Your task to perform on an android device: turn off notifications settings in the gmail app Image 0: 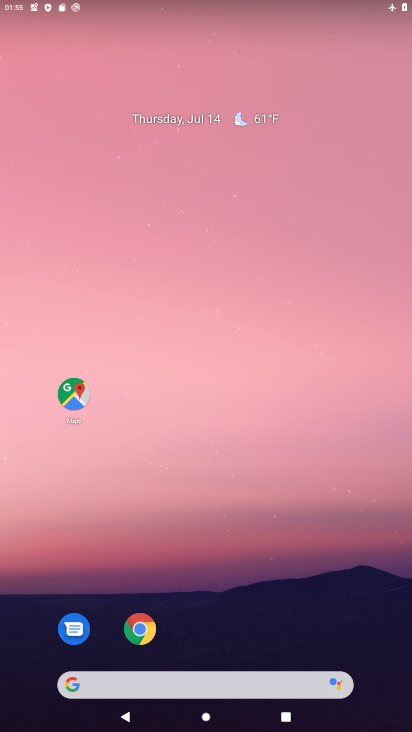
Step 0: drag from (319, 629) to (260, 112)
Your task to perform on an android device: turn off notifications settings in the gmail app Image 1: 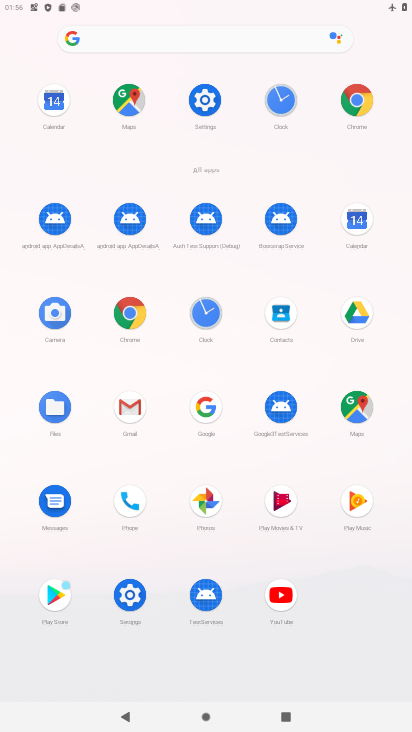
Step 1: click (133, 411)
Your task to perform on an android device: turn off notifications settings in the gmail app Image 2: 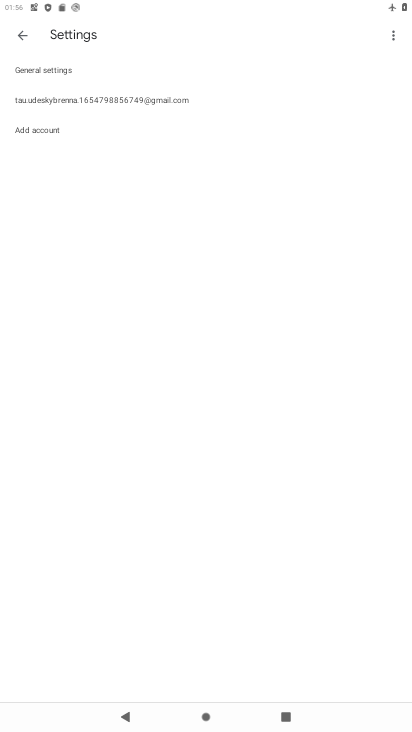
Step 2: click (121, 99)
Your task to perform on an android device: turn off notifications settings in the gmail app Image 3: 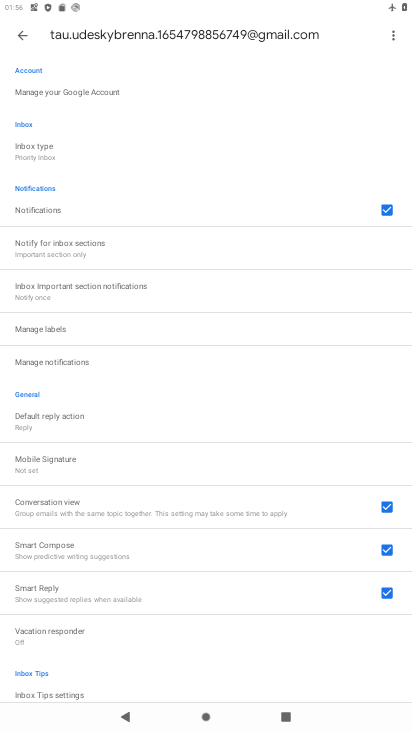
Step 3: click (388, 207)
Your task to perform on an android device: turn off notifications settings in the gmail app Image 4: 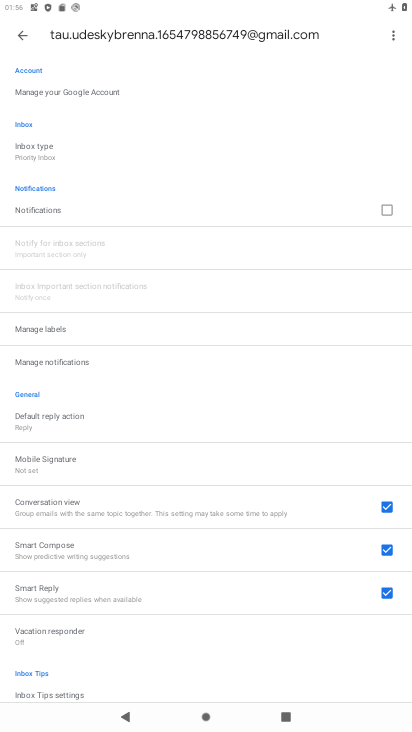
Step 4: task complete